Your task to perform on an android device: turn on data saver in the chrome app Image 0: 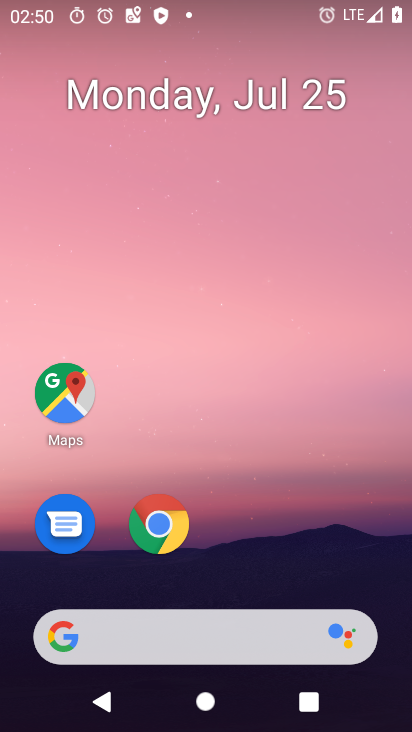
Step 0: drag from (281, 575) to (275, 19)
Your task to perform on an android device: turn on data saver in the chrome app Image 1: 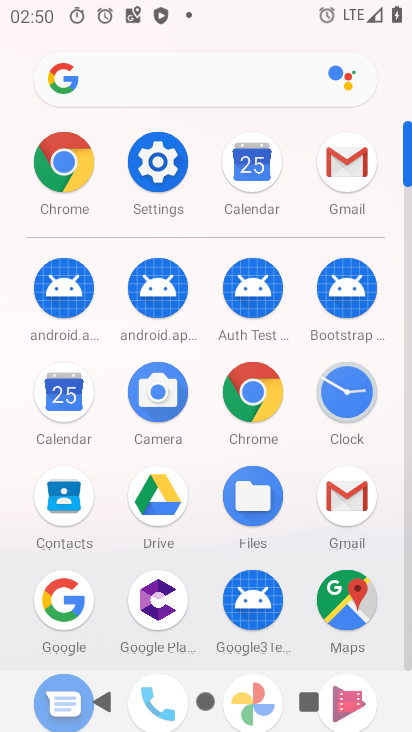
Step 1: click (72, 175)
Your task to perform on an android device: turn on data saver in the chrome app Image 2: 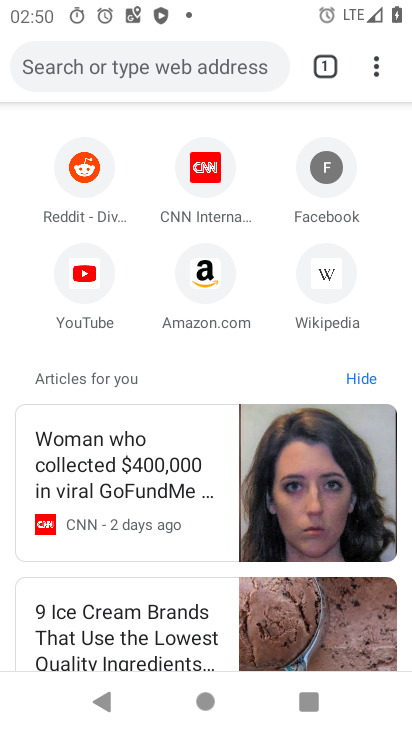
Step 2: drag from (379, 52) to (150, 561)
Your task to perform on an android device: turn on data saver in the chrome app Image 3: 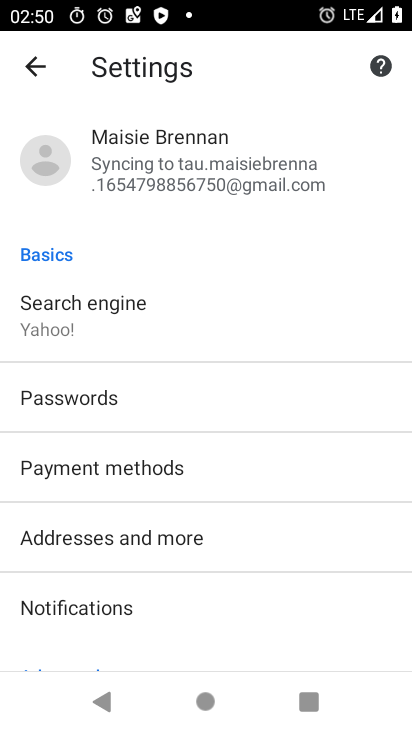
Step 3: drag from (284, 425) to (250, 117)
Your task to perform on an android device: turn on data saver in the chrome app Image 4: 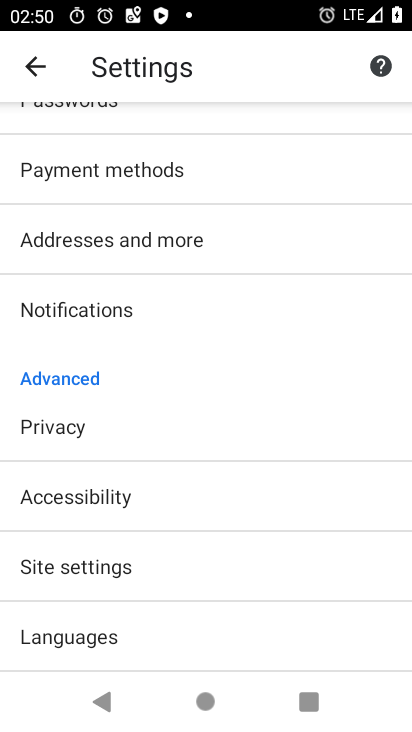
Step 4: drag from (273, 626) to (304, 246)
Your task to perform on an android device: turn on data saver in the chrome app Image 5: 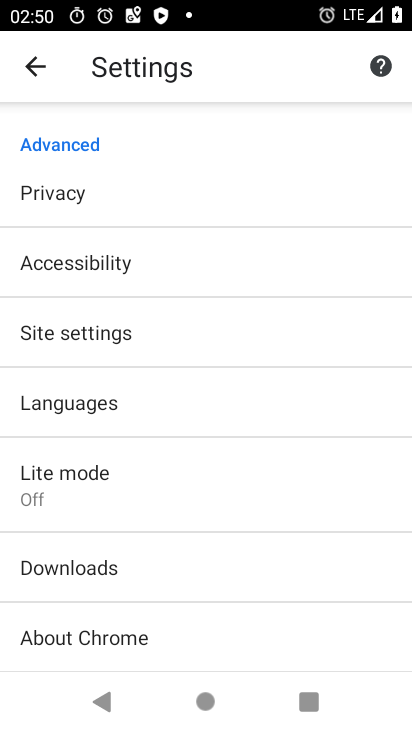
Step 5: click (63, 475)
Your task to perform on an android device: turn on data saver in the chrome app Image 6: 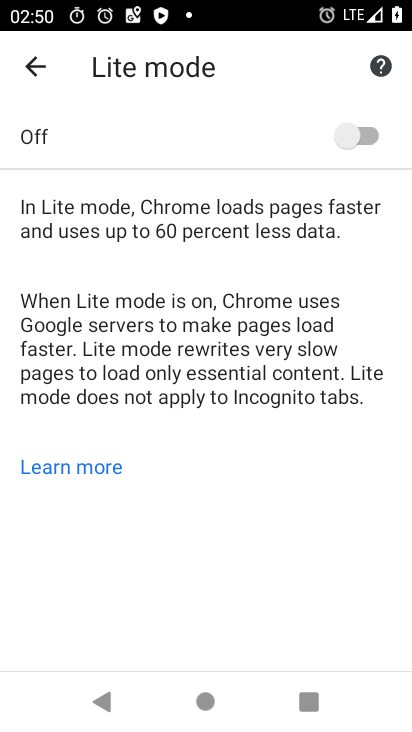
Step 6: click (348, 136)
Your task to perform on an android device: turn on data saver in the chrome app Image 7: 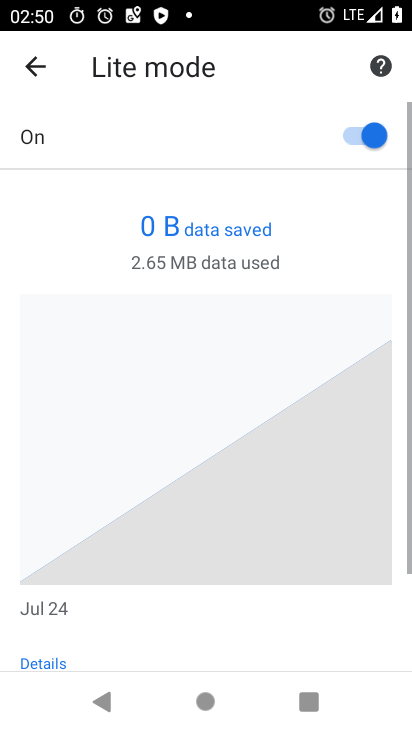
Step 7: task complete